Your task to perform on an android device: Open battery settings Image 0: 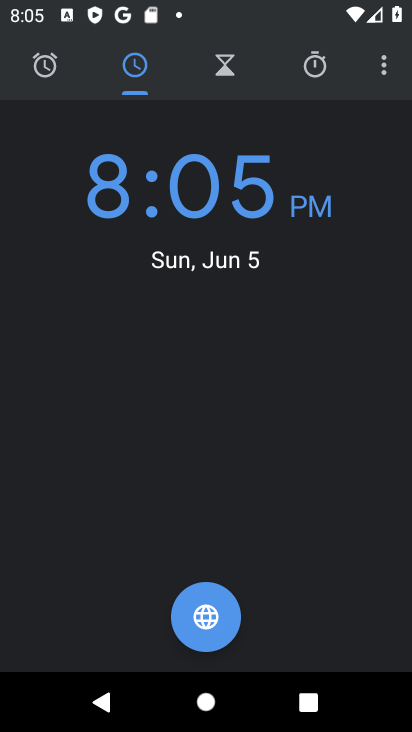
Step 0: click (289, 14)
Your task to perform on an android device: Open battery settings Image 1: 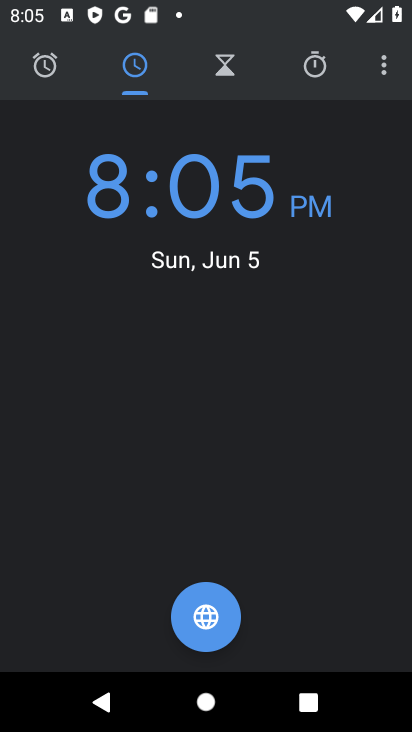
Step 1: drag from (289, 14) to (235, 404)
Your task to perform on an android device: Open battery settings Image 2: 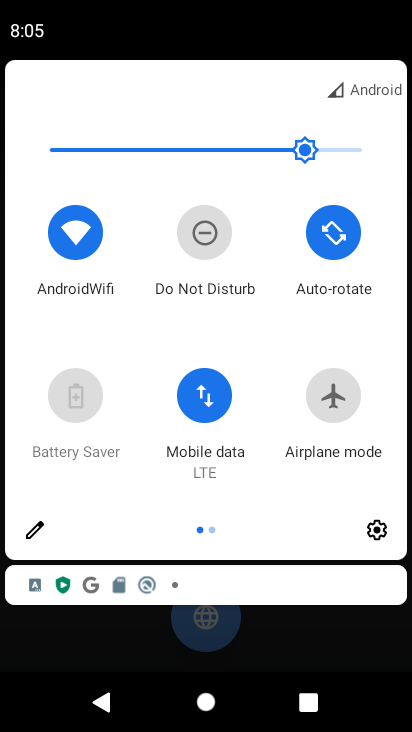
Step 2: click (68, 401)
Your task to perform on an android device: Open battery settings Image 3: 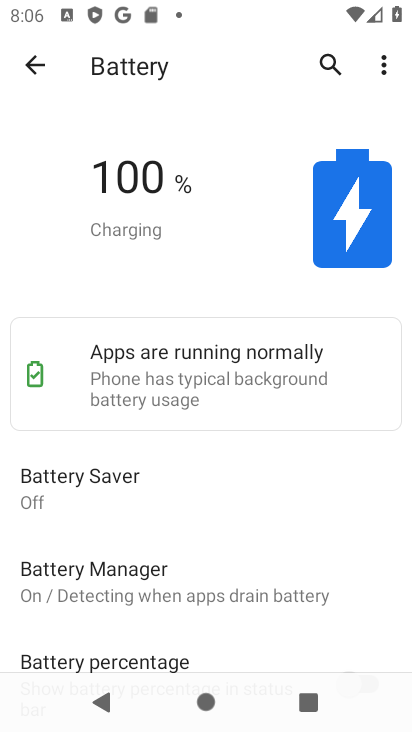
Step 3: task complete